Your task to perform on an android device: Open Android settings Image 0: 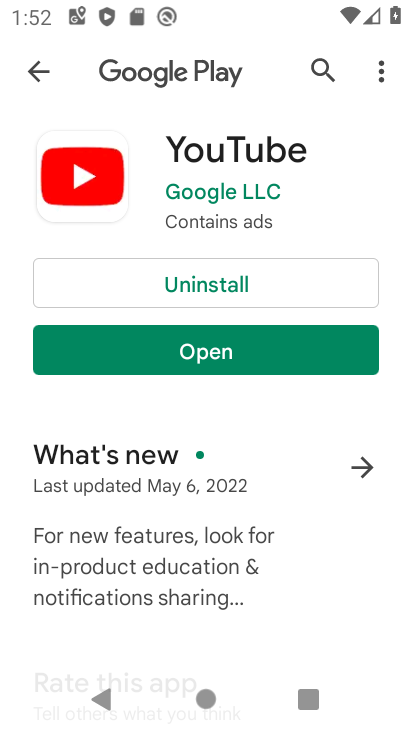
Step 0: press home button
Your task to perform on an android device: Open Android settings Image 1: 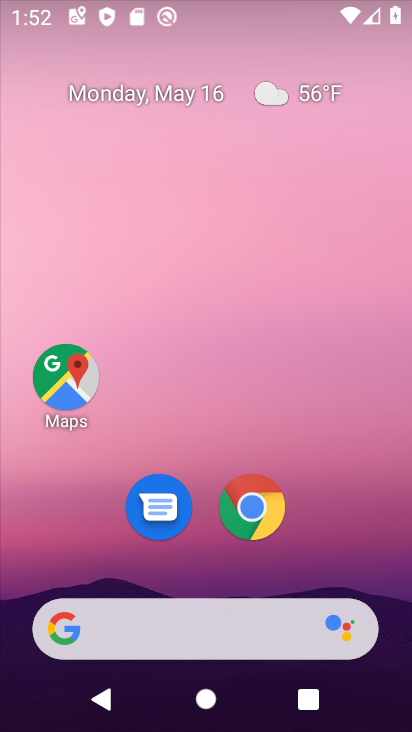
Step 1: drag from (210, 515) to (248, 6)
Your task to perform on an android device: Open Android settings Image 2: 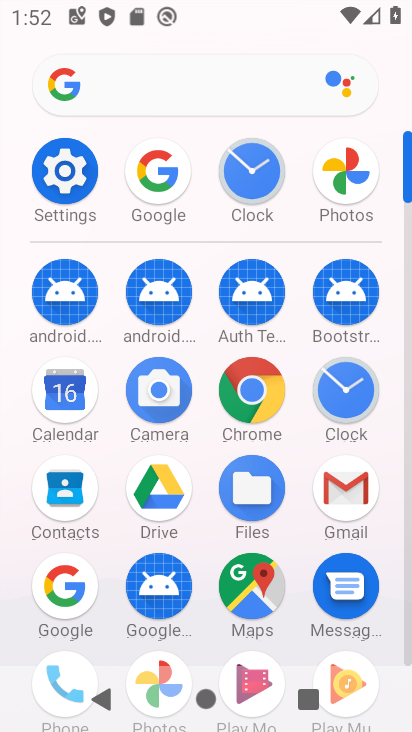
Step 2: click (69, 174)
Your task to perform on an android device: Open Android settings Image 3: 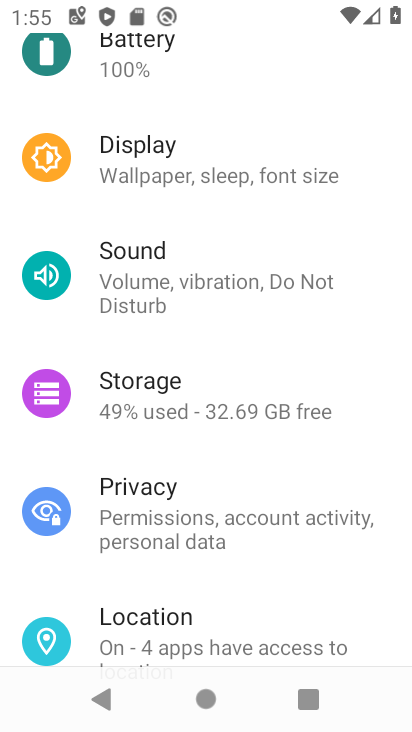
Step 3: task complete